Your task to perform on an android device: toggle airplane mode Image 0: 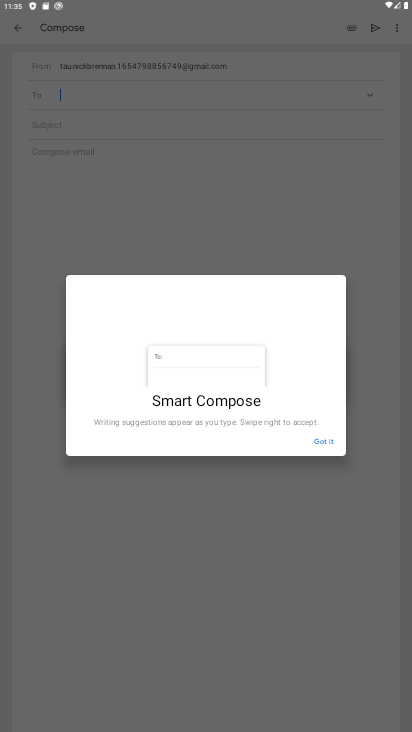
Step 0: drag from (250, 452) to (292, 269)
Your task to perform on an android device: toggle airplane mode Image 1: 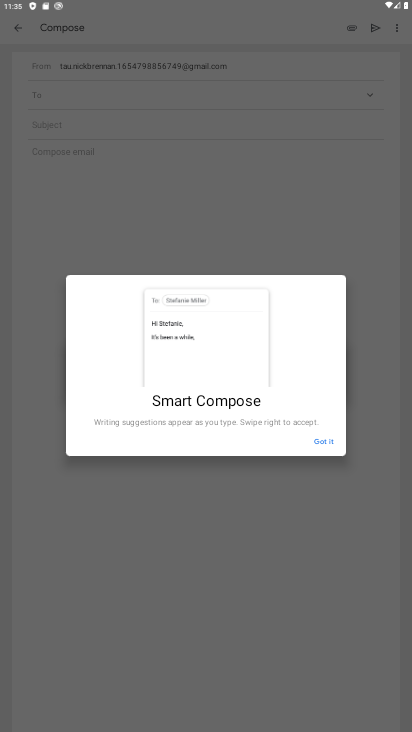
Step 1: press home button
Your task to perform on an android device: toggle airplane mode Image 2: 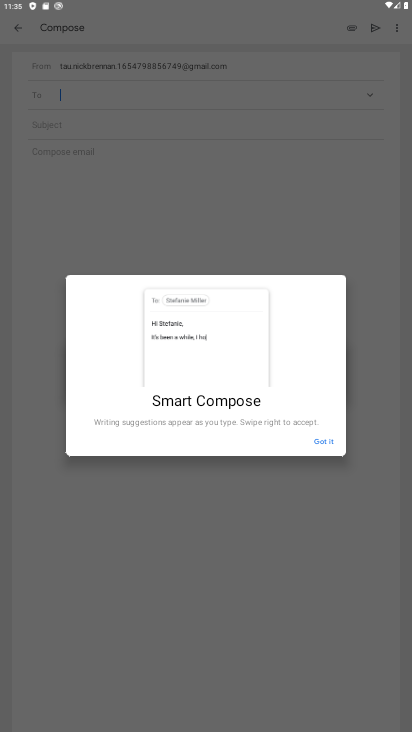
Step 2: drag from (188, 624) to (248, 104)
Your task to perform on an android device: toggle airplane mode Image 3: 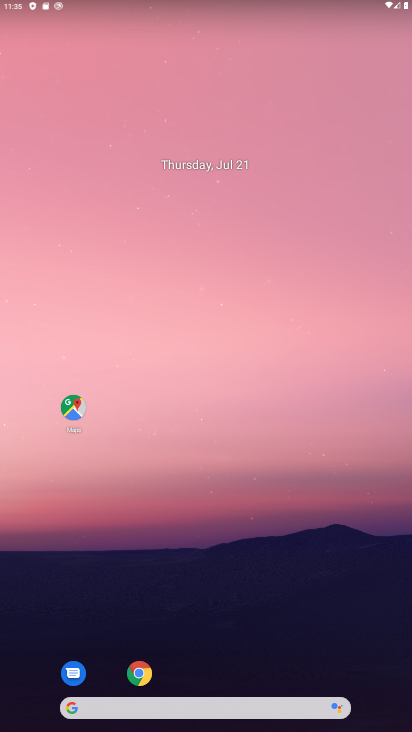
Step 3: drag from (195, 658) to (315, 22)
Your task to perform on an android device: toggle airplane mode Image 4: 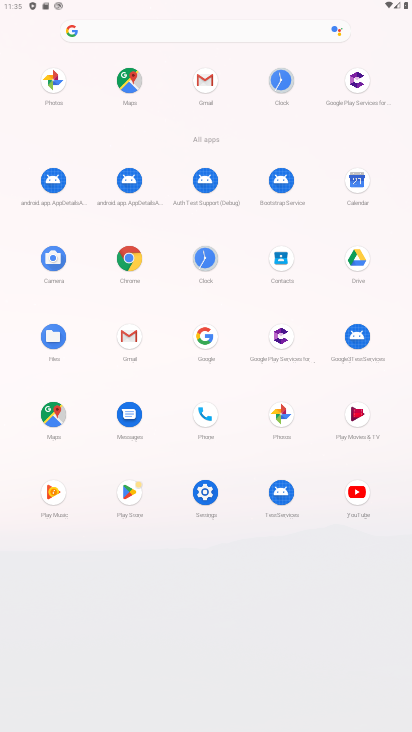
Step 4: click (196, 498)
Your task to perform on an android device: toggle airplane mode Image 5: 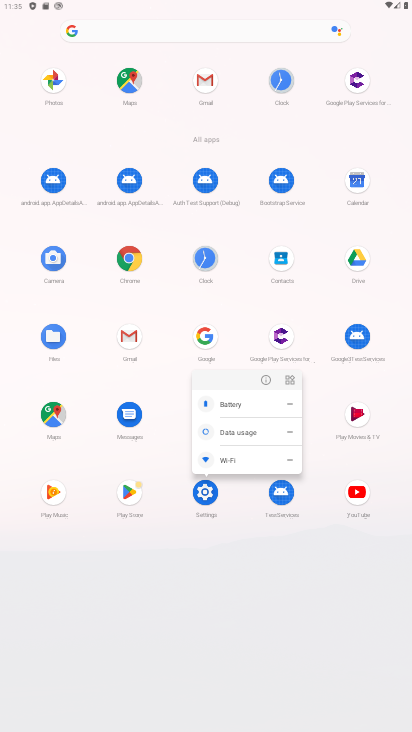
Step 5: click (261, 381)
Your task to perform on an android device: toggle airplane mode Image 6: 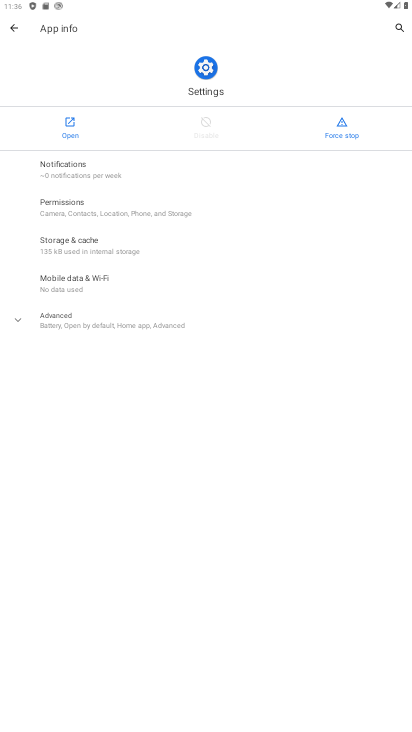
Step 6: click (50, 118)
Your task to perform on an android device: toggle airplane mode Image 7: 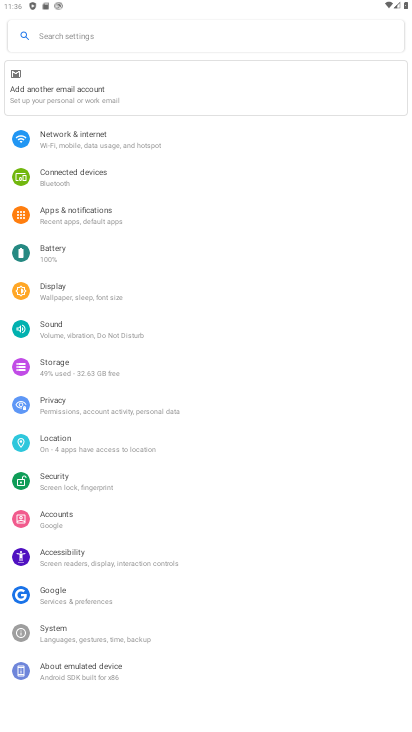
Step 7: click (76, 135)
Your task to perform on an android device: toggle airplane mode Image 8: 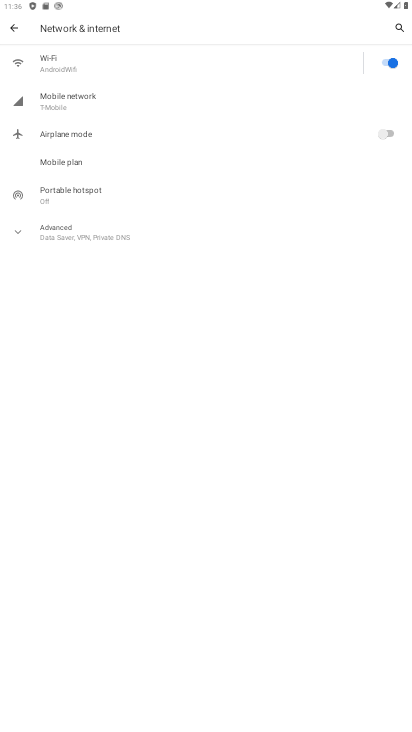
Step 8: click (78, 137)
Your task to perform on an android device: toggle airplane mode Image 9: 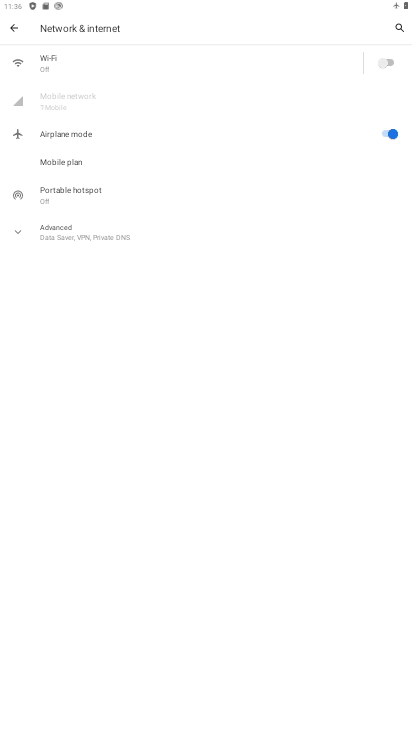
Step 9: task complete